Your task to perform on an android device: open chrome privacy settings Image 0: 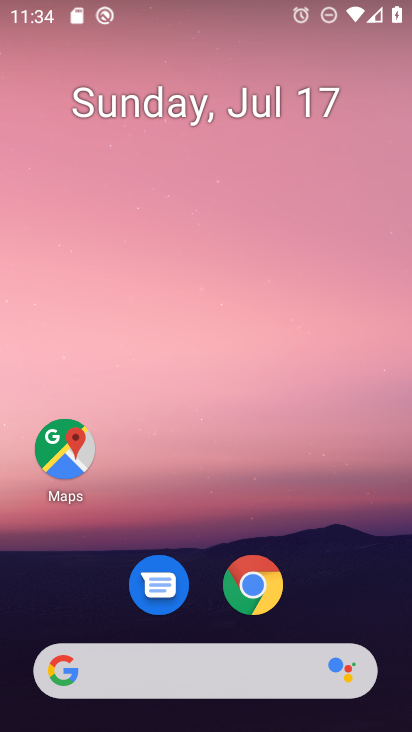
Step 0: click (249, 582)
Your task to perform on an android device: open chrome privacy settings Image 1: 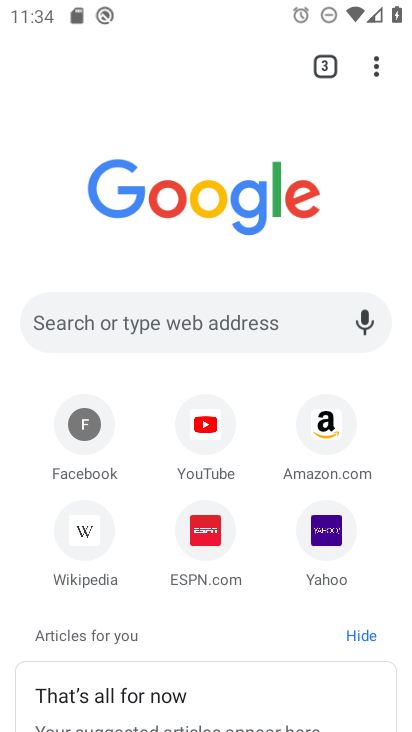
Step 1: click (249, 582)
Your task to perform on an android device: open chrome privacy settings Image 2: 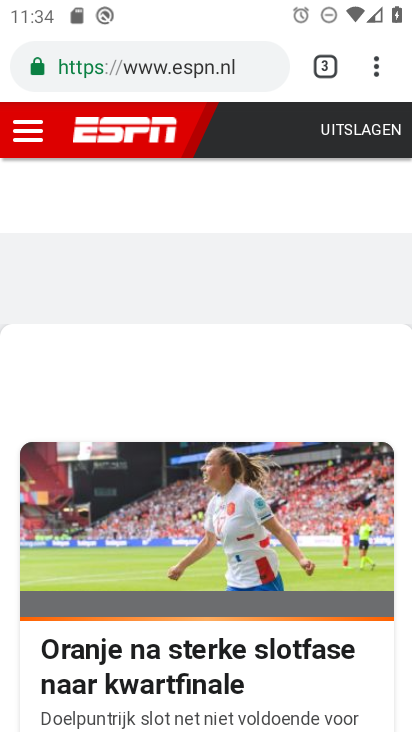
Step 2: click (376, 71)
Your task to perform on an android device: open chrome privacy settings Image 3: 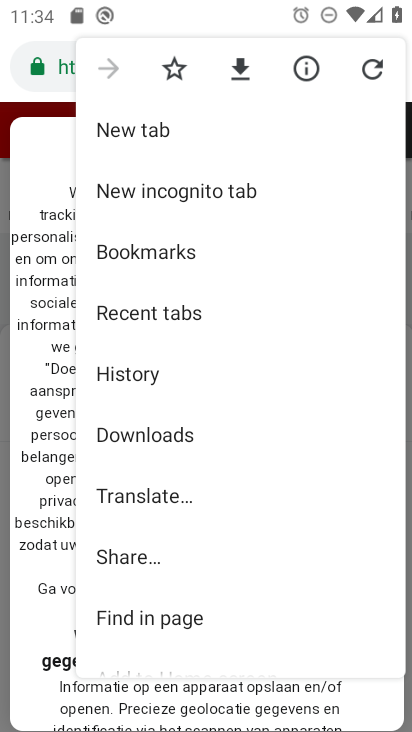
Step 3: drag from (215, 473) to (251, 195)
Your task to perform on an android device: open chrome privacy settings Image 4: 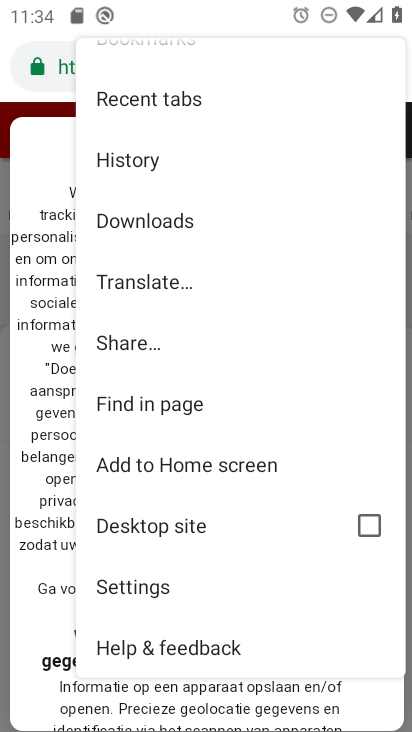
Step 4: click (159, 589)
Your task to perform on an android device: open chrome privacy settings Image 5: 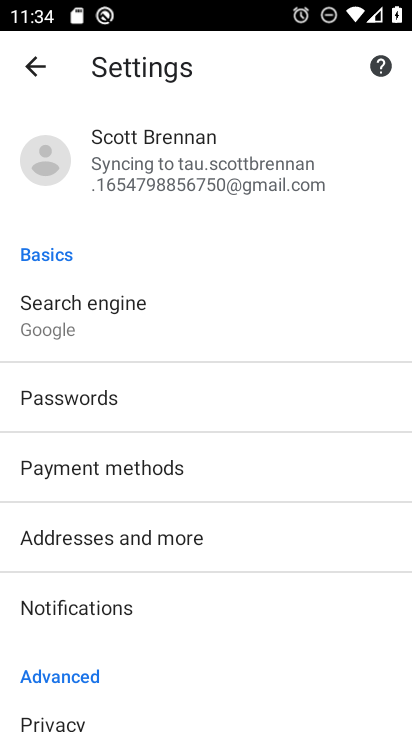
Step 5: drag from (192, 584) to (218, 326)
Your task to perform on an android device: open chrome privacy settings Image 6: 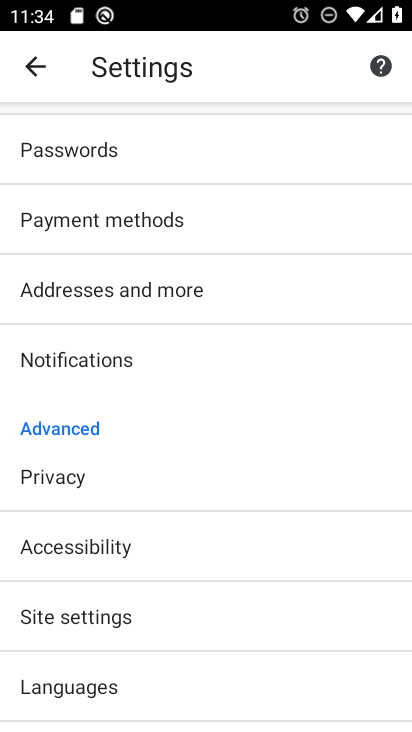
Step 6: click (67, 482)
Your task to perform on an android device: open chrome privacy settings Image 7: 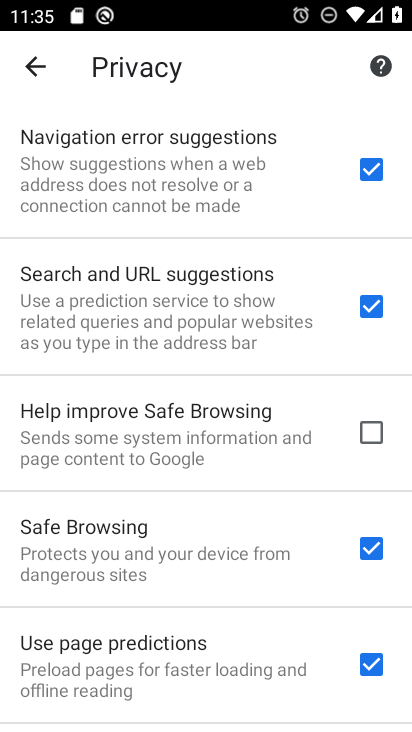
Step 7: task complete